Your task to perform on an android device: star an email in the gmail app Image 0: 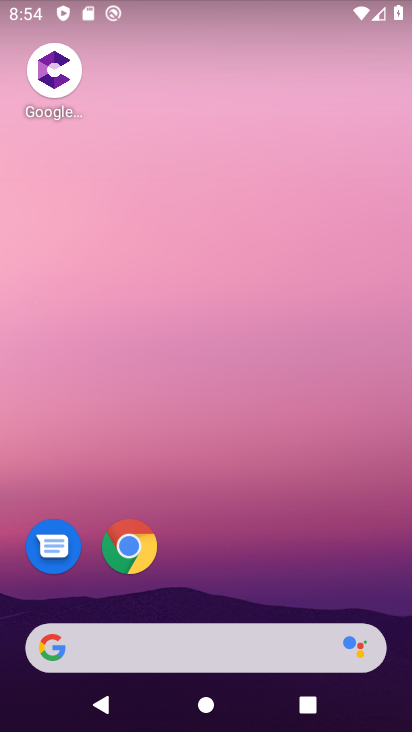
Step 0: drag from (257, 404) to (318, 5)
Your task to perform on an android device: star an email in the gmail app Image 1: 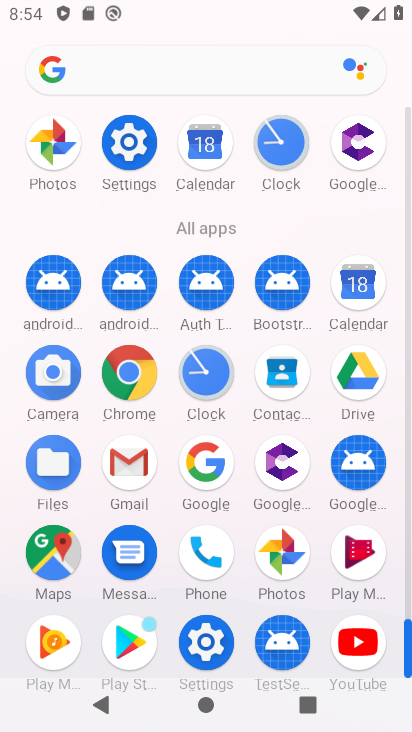
Step 1: click (139, 462)
Your task to perform on an android device: star an email in the gmail app Image 2: 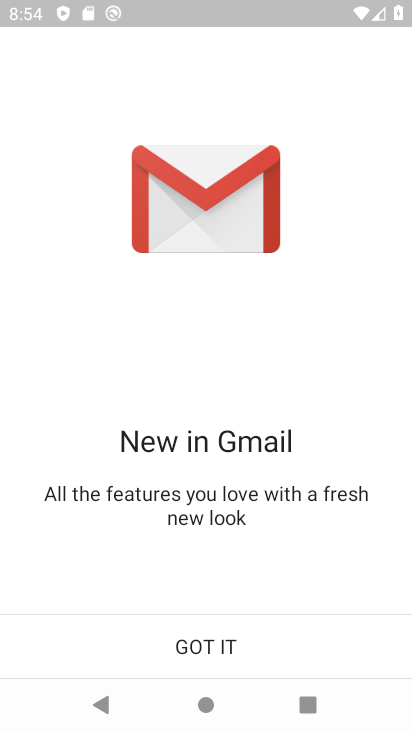
Step 2: click (197, 650)
Your task to perform on an android device: star an email in the gmail app Image 3: 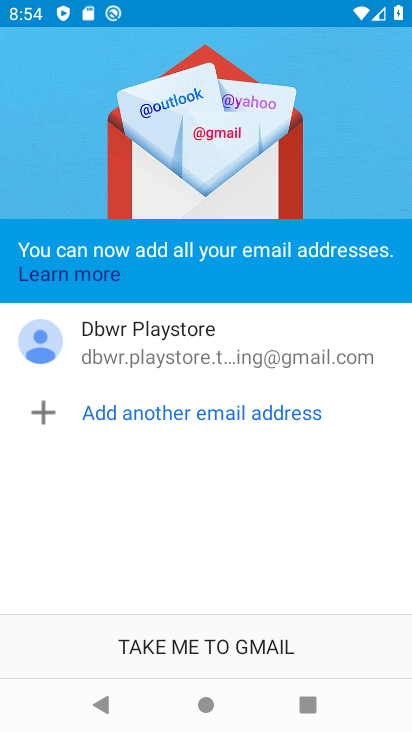
Step 3: click (238, 650)
Your task to perform on an android device: star an email in the gmail app Image 4: 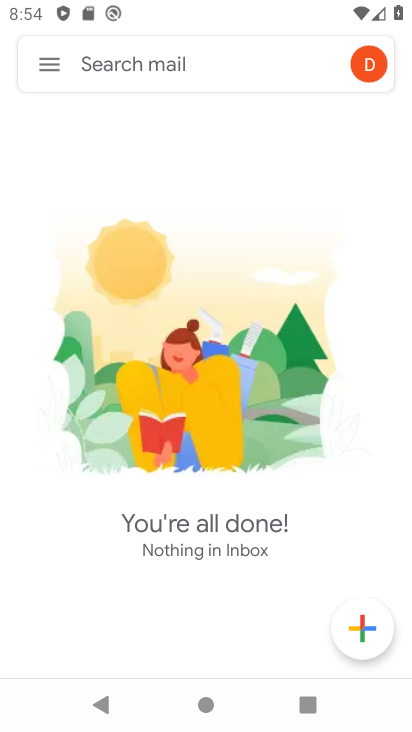
Step 4: task complete